Your task to perform on an android device: Open accessibility settings Image 0: 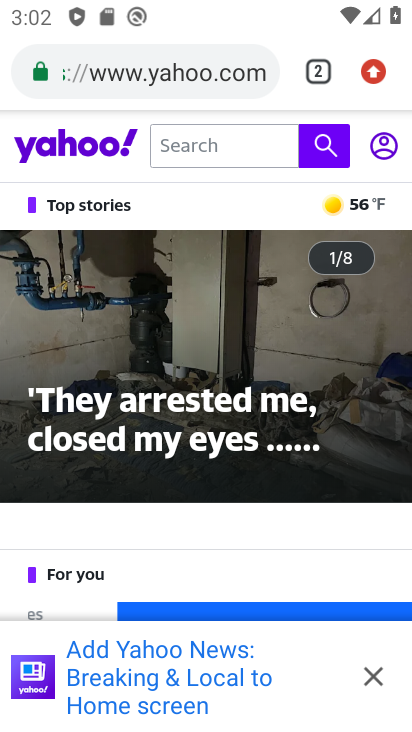
Step 0: press home button
Your task to perform on an android device: Open accessibility settings Image 1: 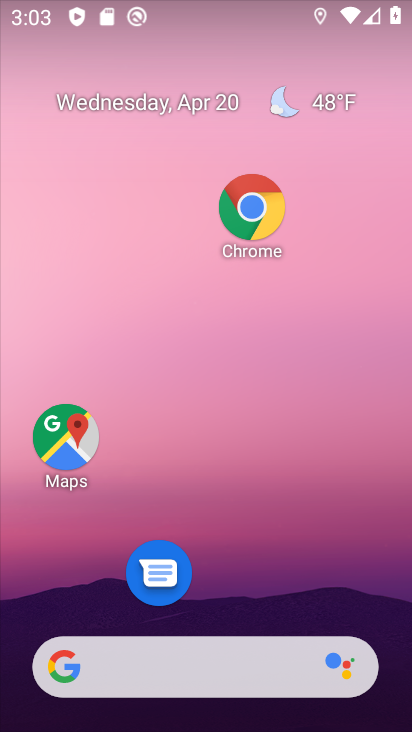
Step 1: drag from (380, 601) to (388, 220)
Your task to perform on an android device: Open accessibility settings Image 2: 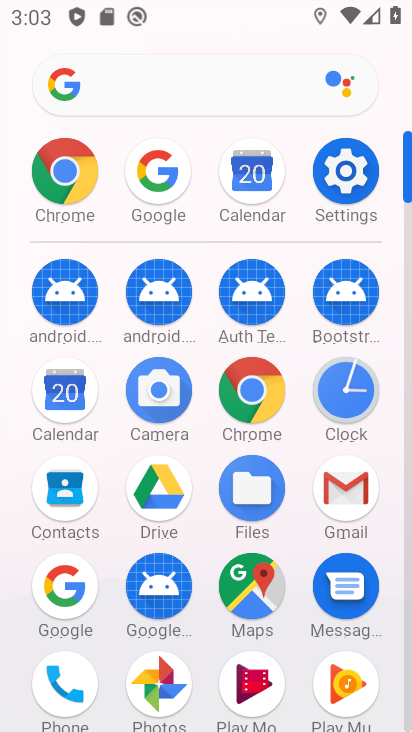
Step 2: click (329, 170)
Your task to perform on an android device: Open accessibility settings Image 3: 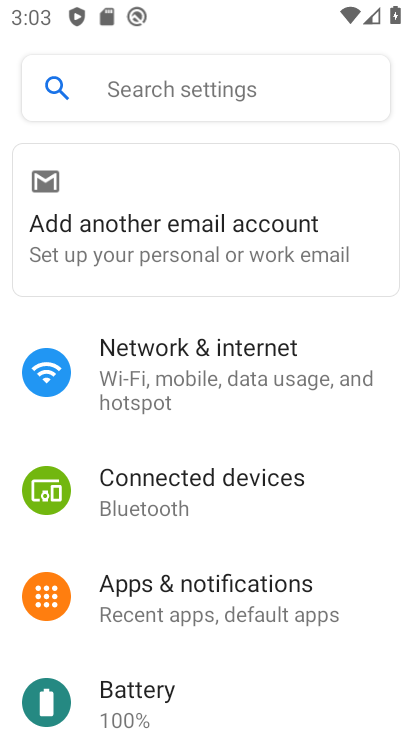
Step 3: drag from (210, 360) to (243, 213)
Your task to perform on an android device: Open accessibility settings Image 4: 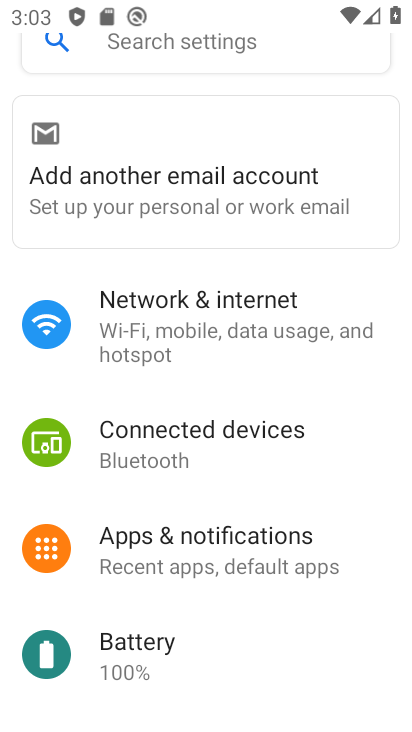
Step 4: drag from (205, 490) to (323, 104)
Your task to perform on an android device: Open accessibility settings Image 5: 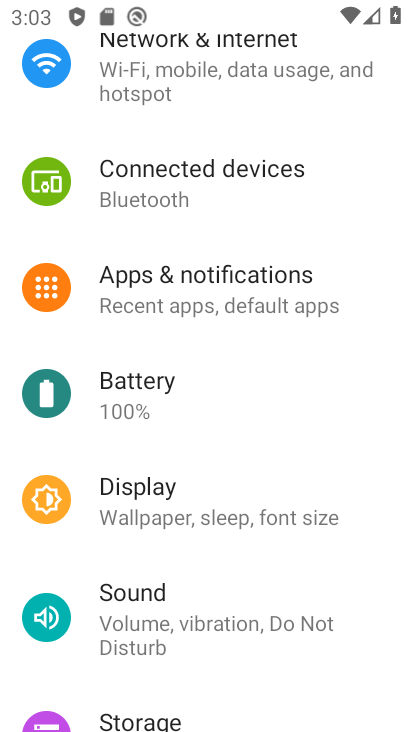
Step 5: drag from (245, 507) to (250, 442)
Your task to perform on an android device: Open accessibility settings Image 6: 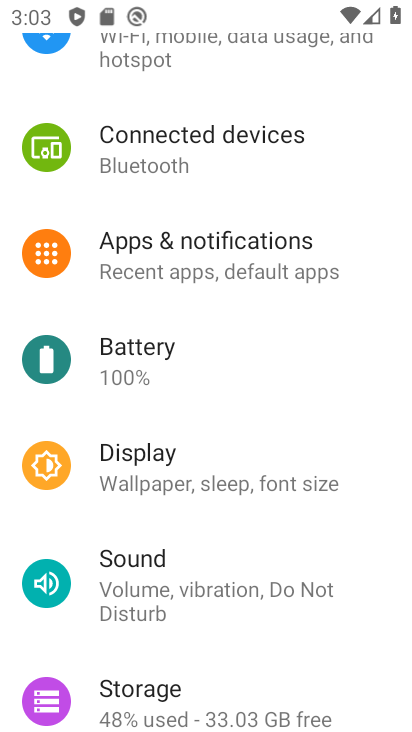
Step 6: drag from (237, 571) to (267, 375)
Your task to perform on an android device: Open accessibility settings Image 7: 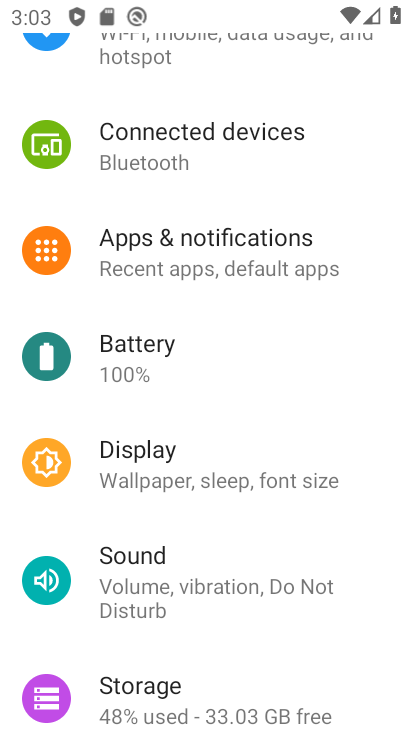
Step 7: drag from (240, 457) to (255, 287)
Your task to perform on an android device: Open accessibility settings Image 8: 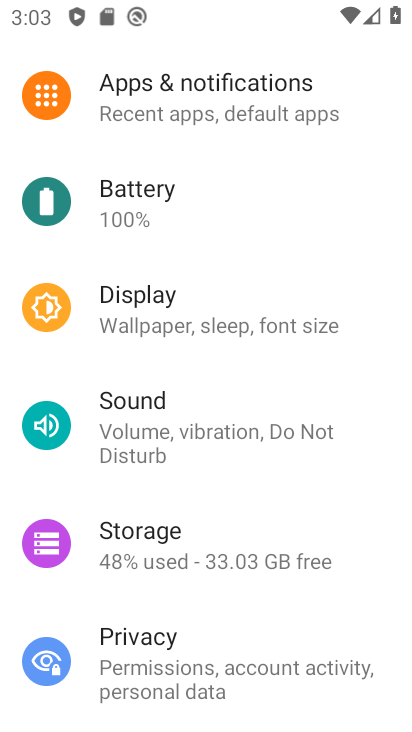
Step 8: drag from (201, 578) to (194, 417)
Your task to perform on an android device: Open accessibility settings Image 9: 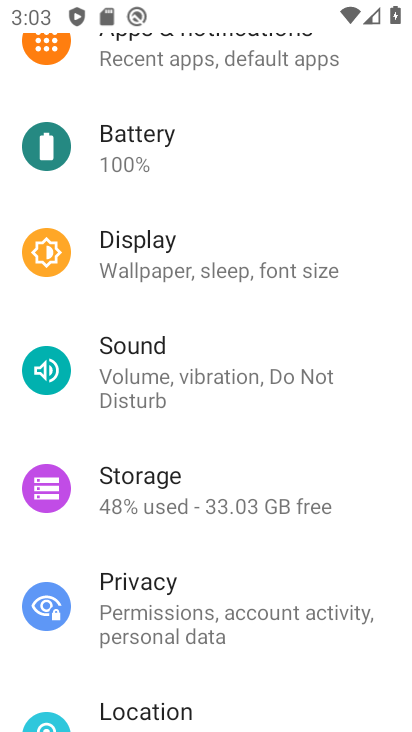
Step 9: click (191, 542)
Your task to perform on an android device: Open accessibility settings Image 10: 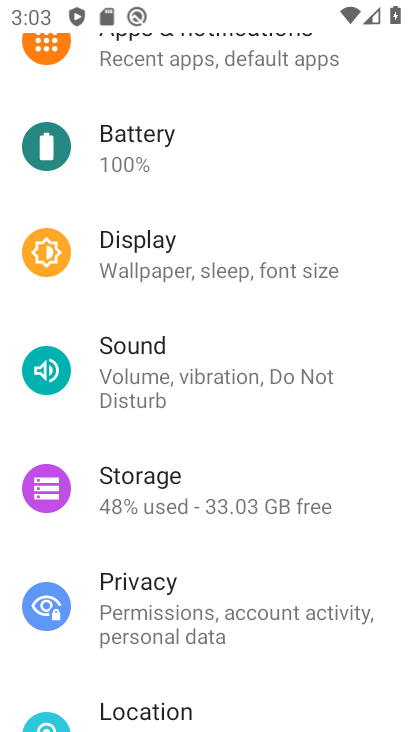
Step 10: drag from (184, 700) to (192, 545)
Your task to perform on an android device: Open accessibility settings Image 11: 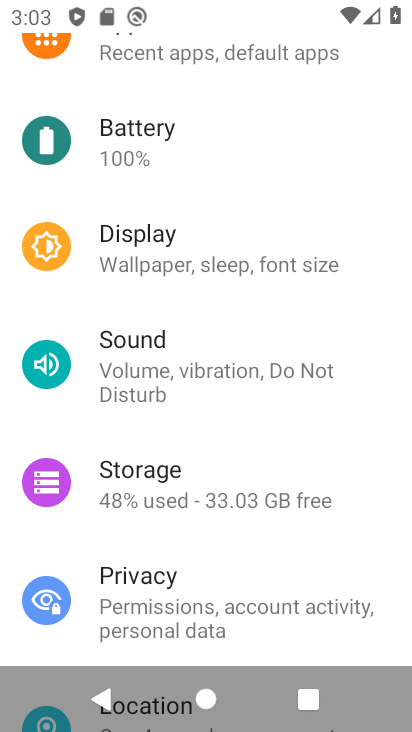
Step 11: drag from (196, 584) to (230, 230)
Your task to perform on an android device: Open accessibility settings Image 12: 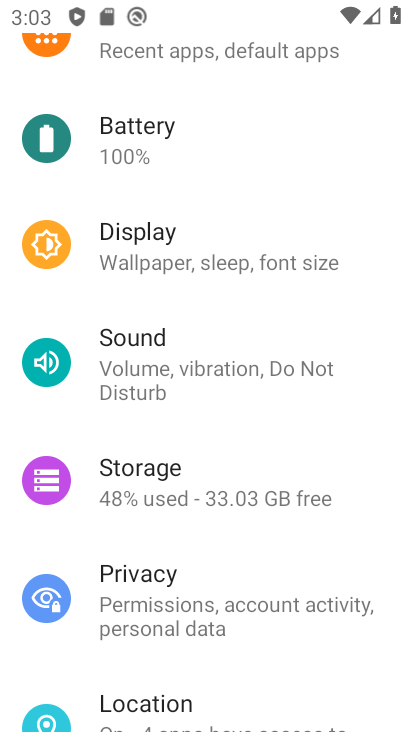
Step 12: click (245, 565)
Your task to perform on an android device: Open accessibility settings Image 13: 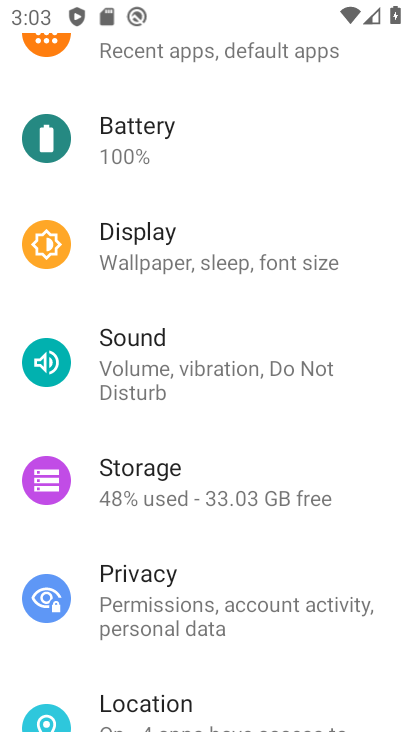
Step 13: drag from (241, 552) to (232, 304)
Your task to perform on an android device: Open accessibility settings Image 14: 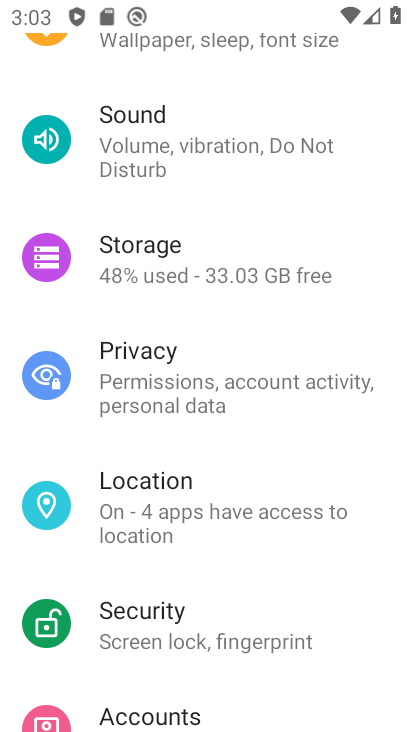
Step 14: drag from (259, 374) to (312, 83)
Your task to perform on an android device: Open accessibility settings Image 15: 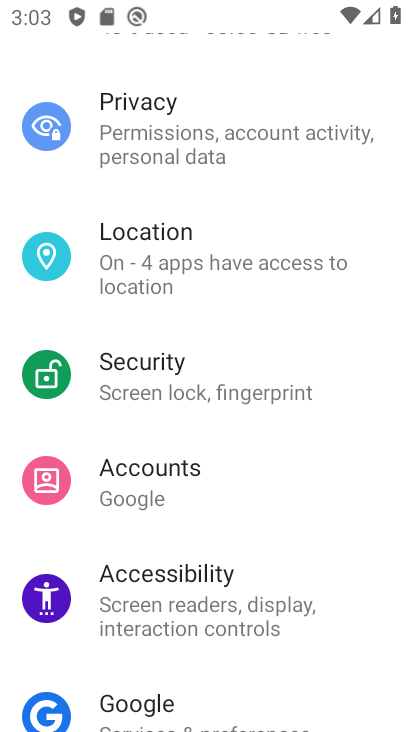
Step 15: click (253, 593)
Your task to perform on an android device: Open accessibility settings Image 16: 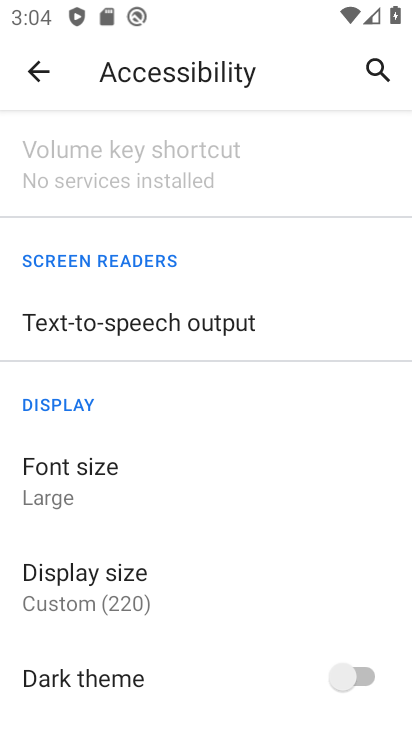
Step 16: task complete